Your task to perform on an android device: open device folders in google photos Image 0: 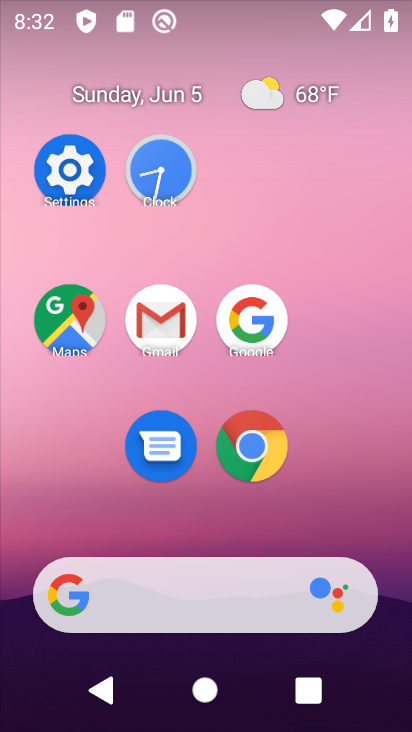
Step 0: drag from (333, 534) to (371, 42)
Your task to perform on an android device: open device folders in google photos Image 1: 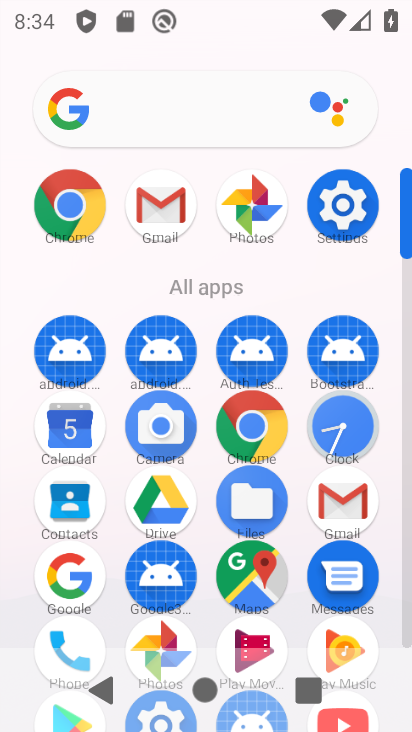
Step 1: drag from (339, 328) to (356, 182)
Your task to perform on an android device: open device folders in google photos Image 2: 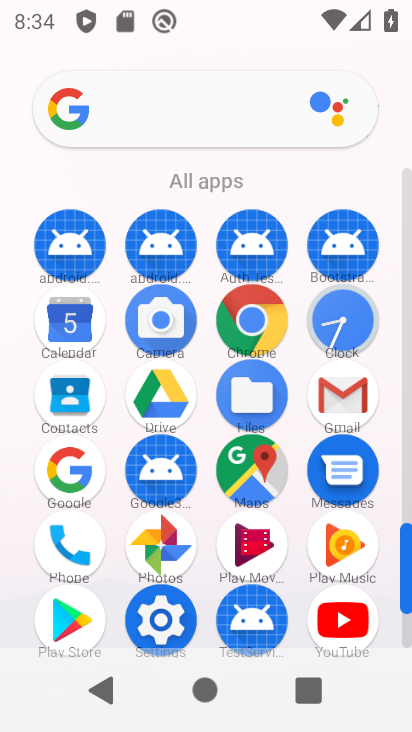
Step 2: click (151, 521)
Your task to perform on an android device: open device folders in google photos Image 3: 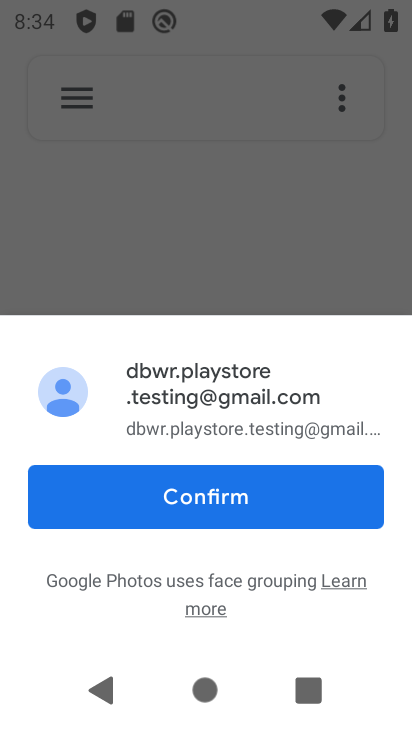
Step 3: click (83, 83)
Your task to perform on an android device: open device folders in google photos Image 4: 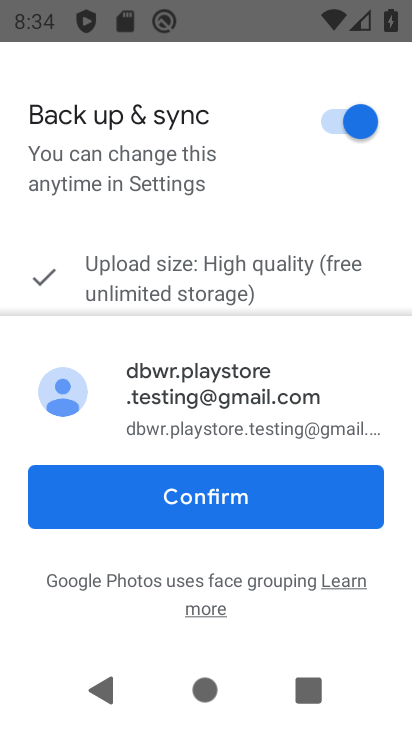
Step 4: click (238, 505)
Your task to perform on an android device: open device folders in google photos Image 5: 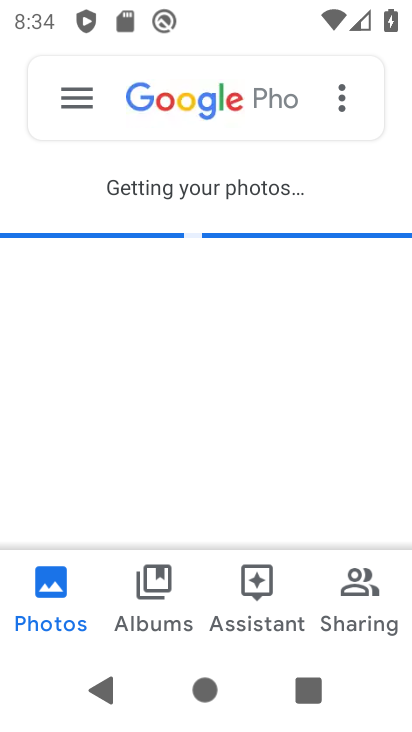
Step 5: click (88, 96)
Your task to perform on an android device: open device folders in google photos Image 6: 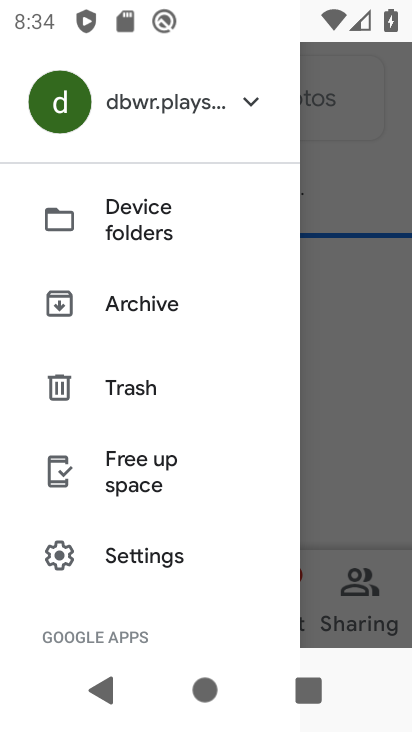
Step 6: click (130, 208)
Your task to perform on an android device: open device folders in google photos Image 7: 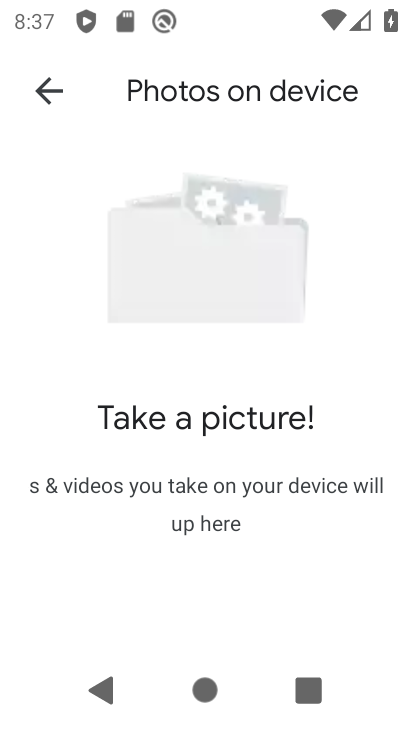
Step 7: task complete